Your task to perform on an android device: Open Yahoo.com Image 0: 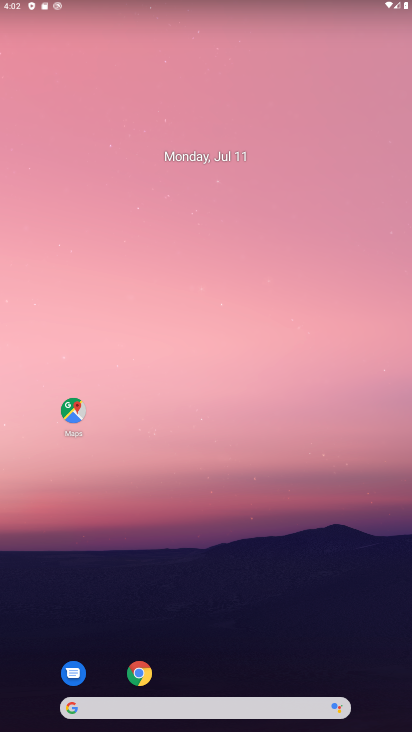
Step 0: drag from (247, 652) to (257, 70)
Your task to perform on an android device: Open Yahoo.com Image 1: 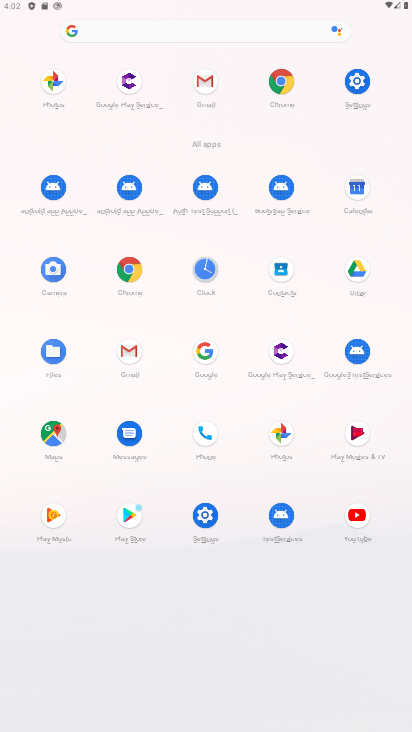
Step 1: click (284, 79)
Your task to perform on an android device: Open Yahoo.com Image 2: 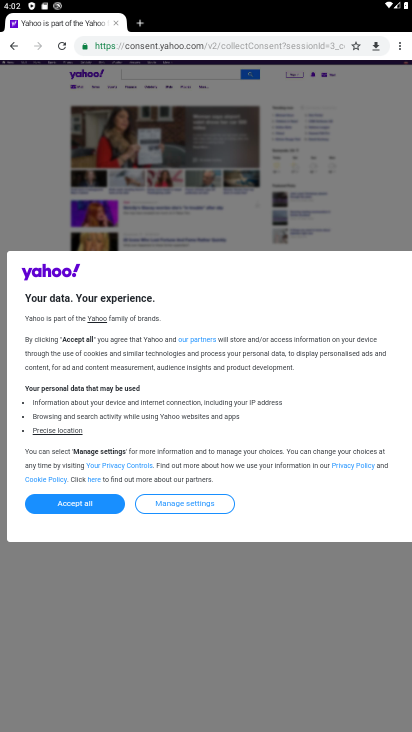
Step 2: task complete